Your task to perform on an android device: toggle airplane mode Image 0: 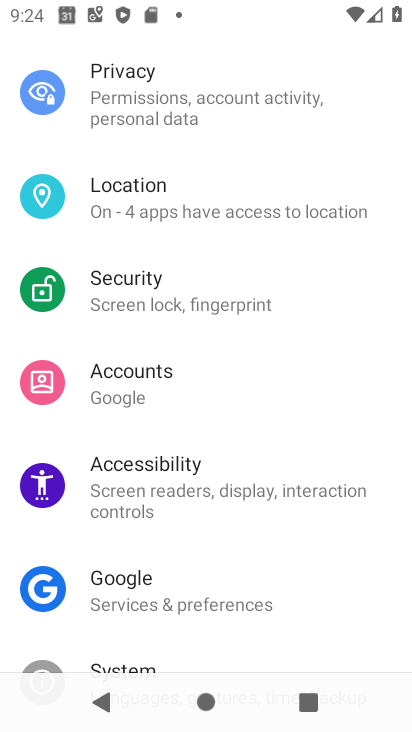
Step 0: press home button
Your task to perform on an android device: toggle airplane mode Image 1: 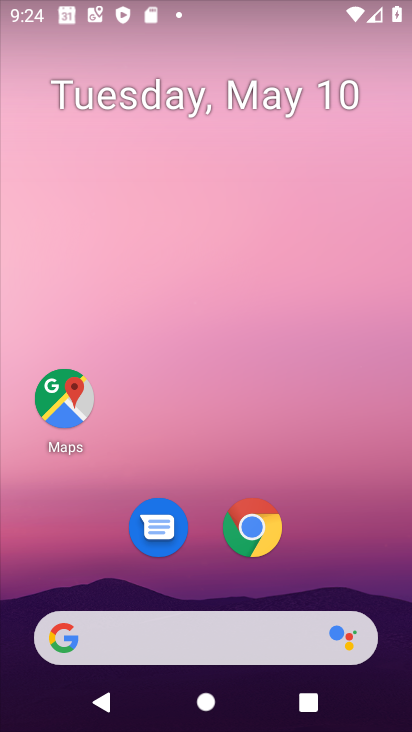
Step 1: drag from (287, 557) to (270, 413)
Your task to perform on an android device: toggle airplane mode Image 2: 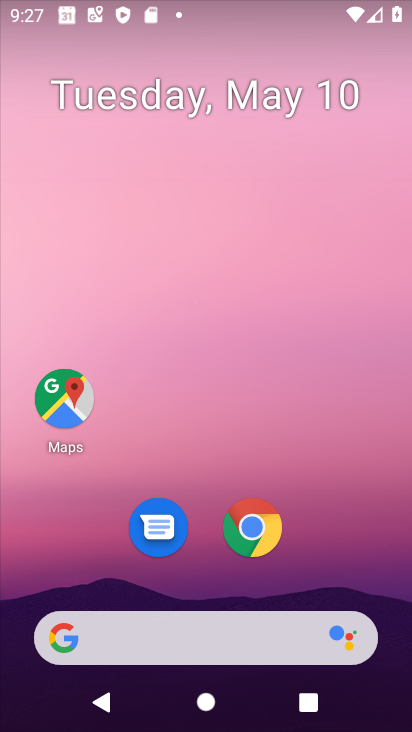
Step 2: drag from (325, 529) to (274, 274)
Your task to perform on an android device: toggle airplane mode Image 3: 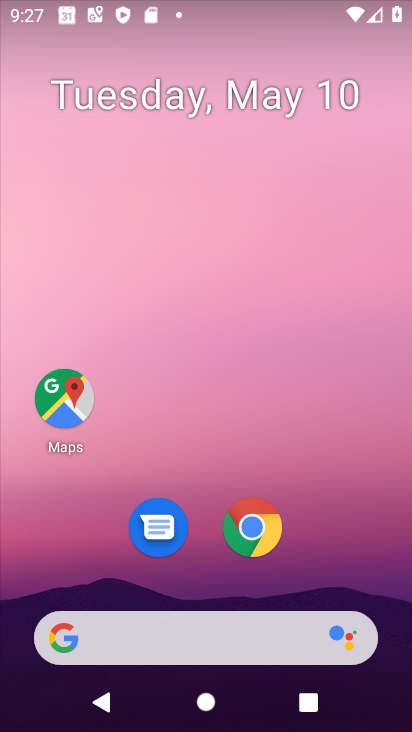
Step 3: drag from (333, 577) to (327, 246)
Your task to perform on an android device: toggle airplane mode Image 4: 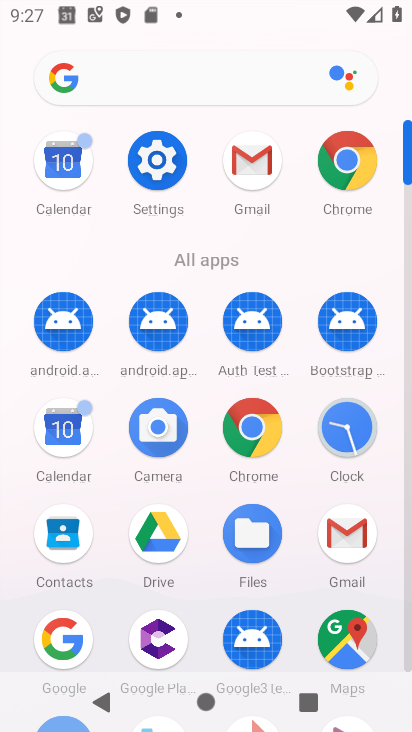
Step 4: click (157, 198)
Your task to perform on an android device: toggle airplane mode Image 5: 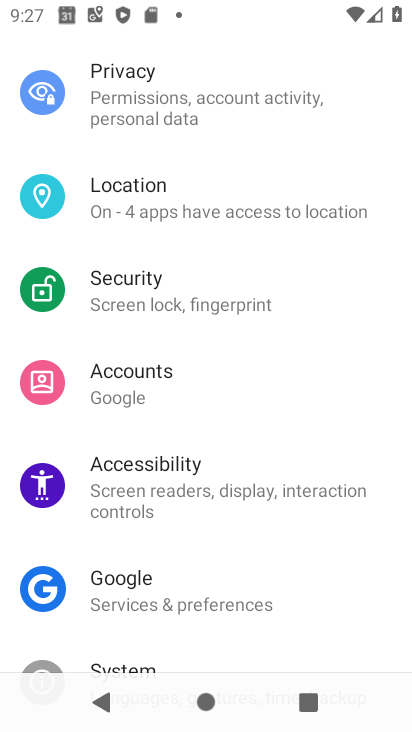
Step 5: drag from (239, 165) to (254, 318)
Your task to perform on an android device: toggle airplane mode Image 6: 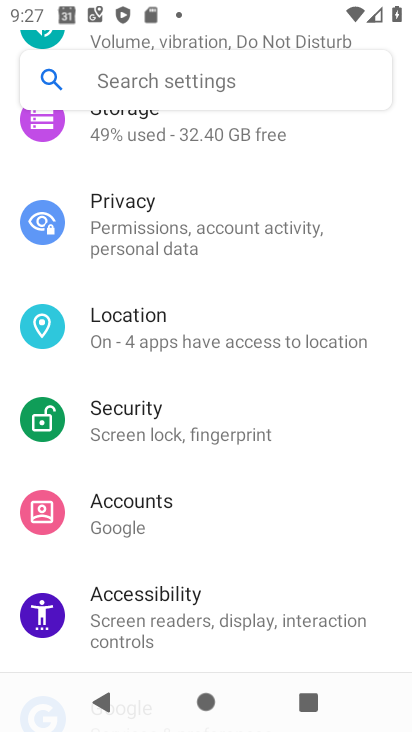
Step 6: drag from (251, 252) to (251, 350)
Your task to perform on an android device: toggle airplane mode Image 7: 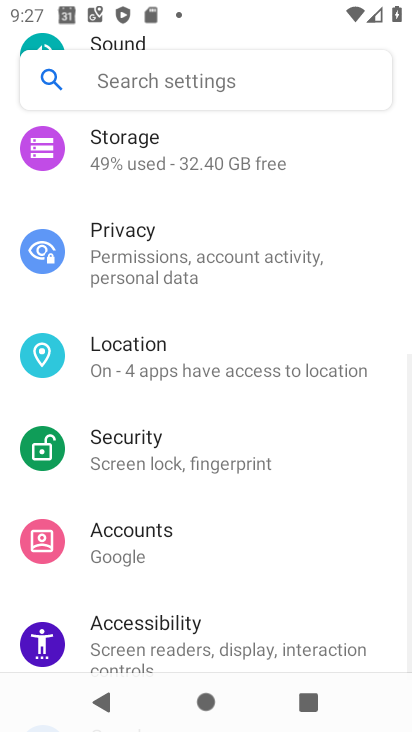
Step 7: drag from (240, 253) to (233, 421)
Your task to perform on an android device: toggle airplane mode Image 8: 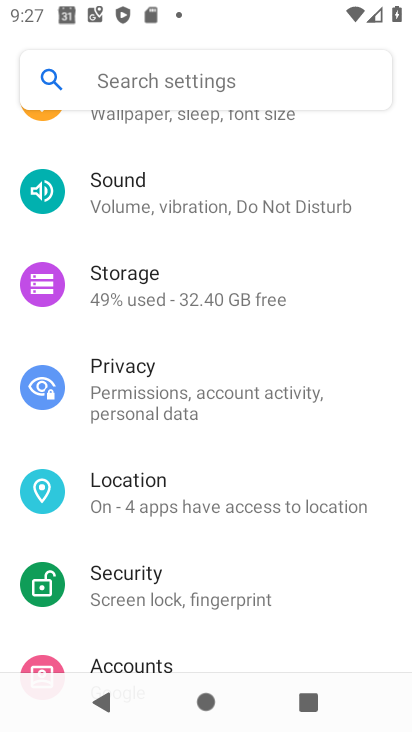
Step 8: drag from (189, 282) to (189, 441)
Your task to perform on an android device: toggle airplane mode Image 9: 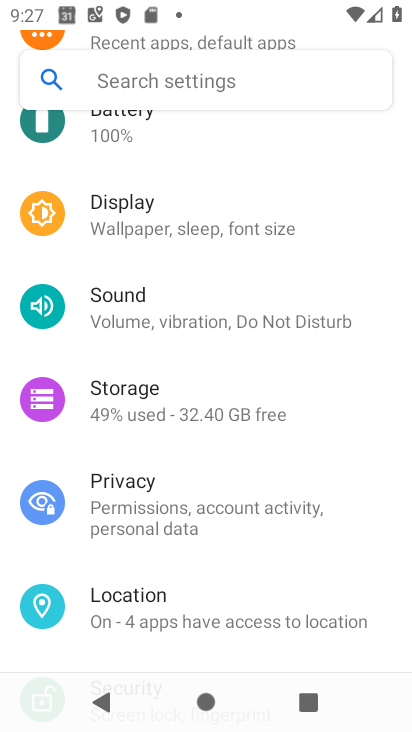
Step 9: drag from (228, 308) to (221, 451)
Your task to perform on an android device: toggle airplane mode Image 10: 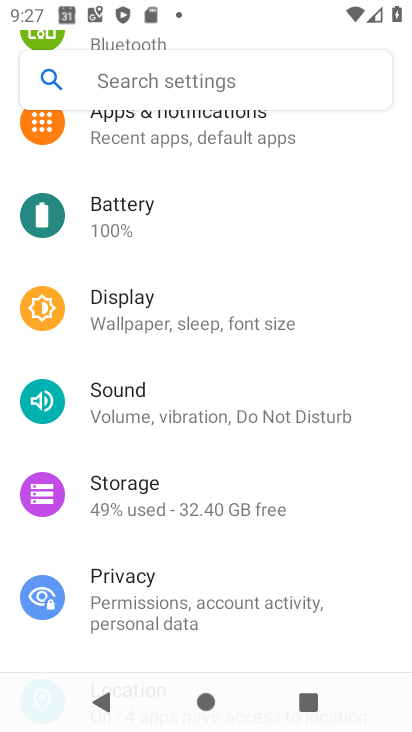
Step 10: drag from (234, 295) to (234, 466)
Your task to perform on an android device: toggle airplane mode Image 11: 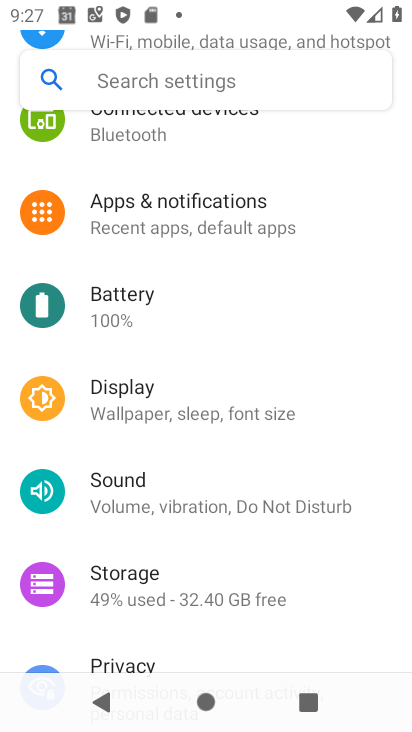
Step 11: drag from (200, 307) to (205, 478)
Your task to perform on an android device: toggle airplane mode Image 12: 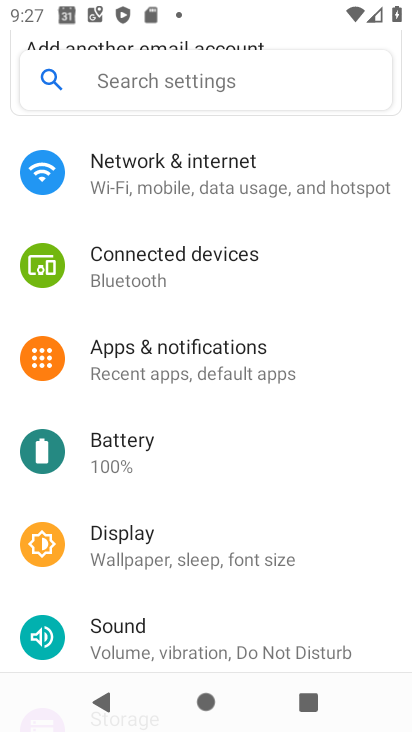
Step 12: drag from (234, 360) to (252, 512)
Your task to perform on an android device: toggle airplane mode Image 13: 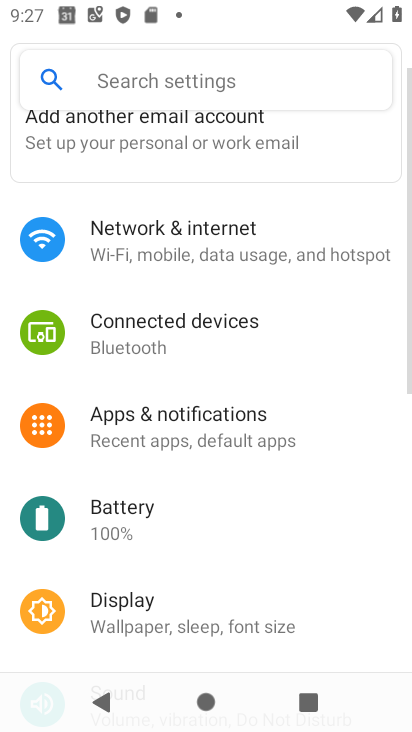
Step 13: click (173, 195)
Your task to perform on an android device: toggle airplane mode Image 14: 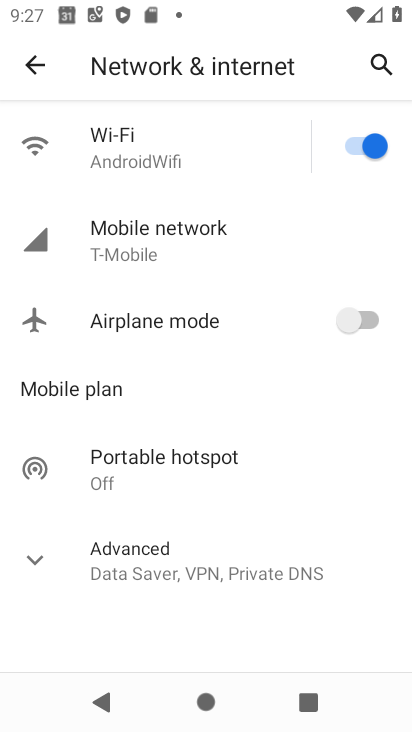
Step 14: click (376, 316)
Your task to perform on an android device: toggle airplane mode Image 15: 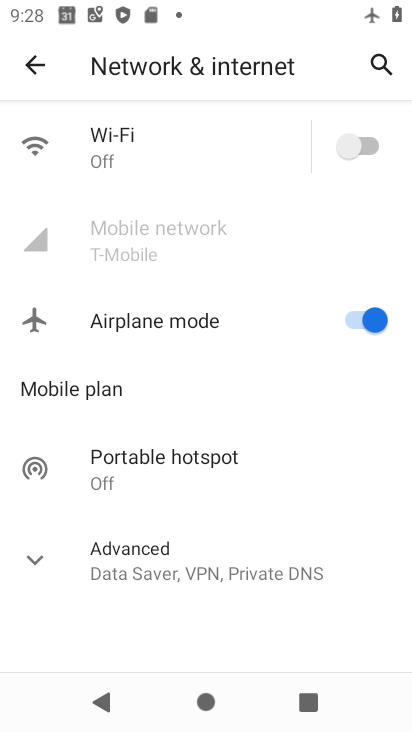
Step 15: task complete